Your task to perform on an android device: show emergency info Image 0: 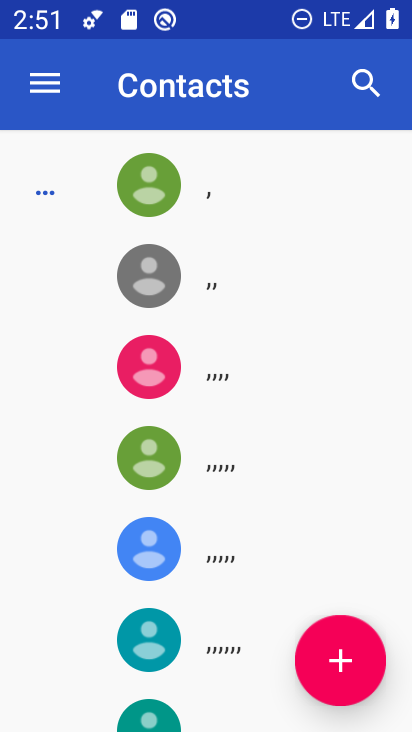
Step 0: press home button
Your task to perform on an android device: show emergency info Image 1: 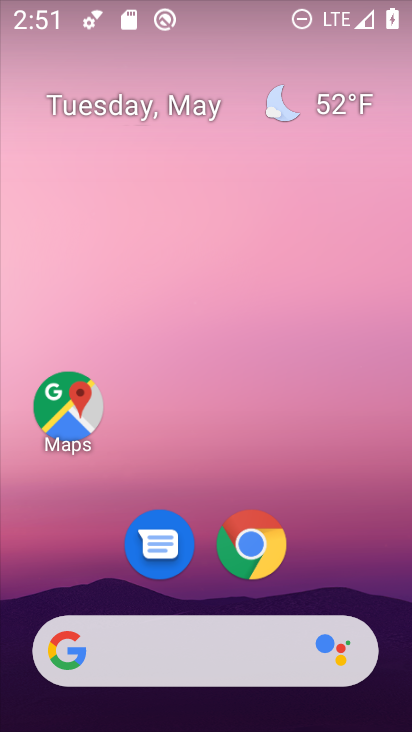
Step 1: drag from (341, 553) to (338, 215)
Your task to perform on an android device: show emergency info Image 2: 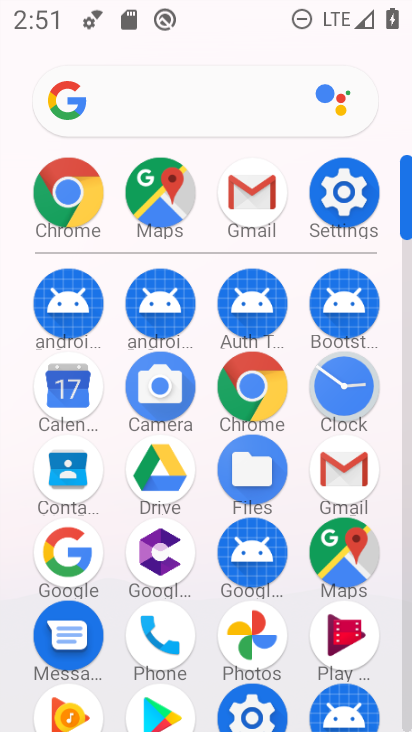
Step 2: click (343, 177)
Your task to perform on an android device: show emergency info Image 3: 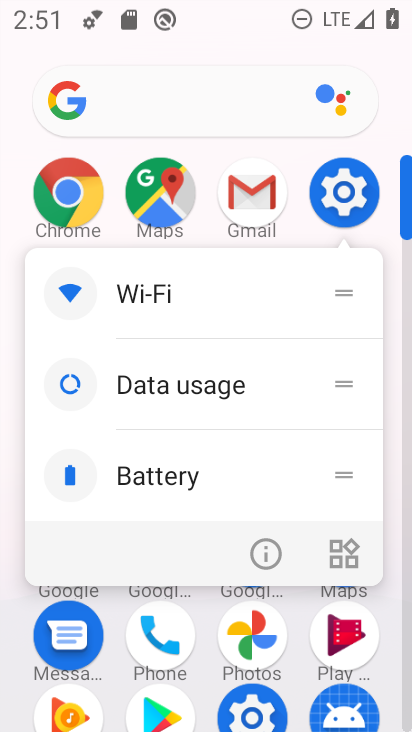
Step 3: click (343, 177)
Your task to perform on an android device: show emergency info Image 4: 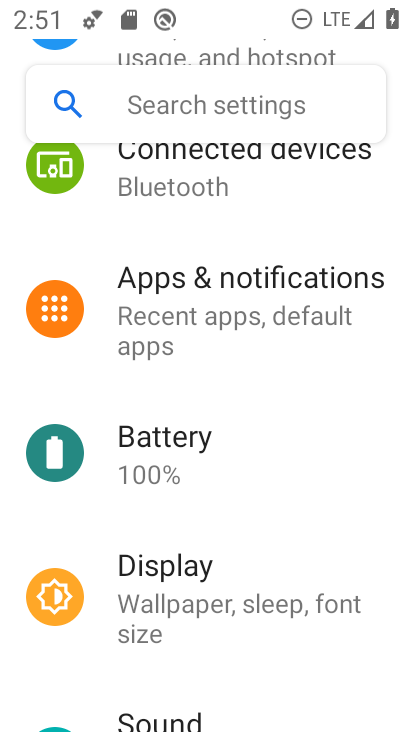
Step 4: drag from (362, 222) to (355, 341)
Your task to perform on an android device: show emergency info Image 5: 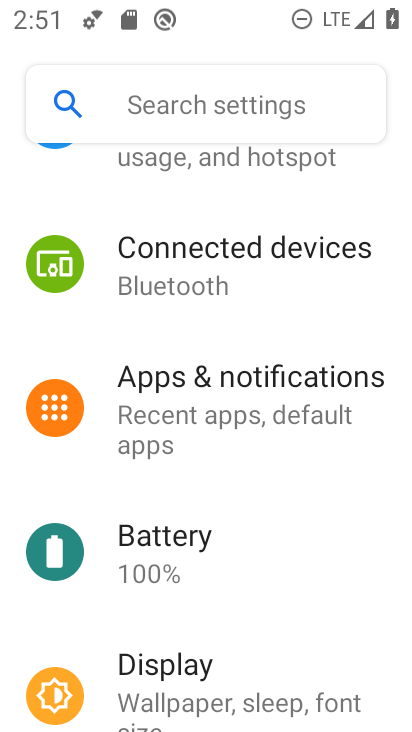
Step 5: drag from (375, 191) to (373, 289)
Your task to perform on an android device: show emergency info Image 6: 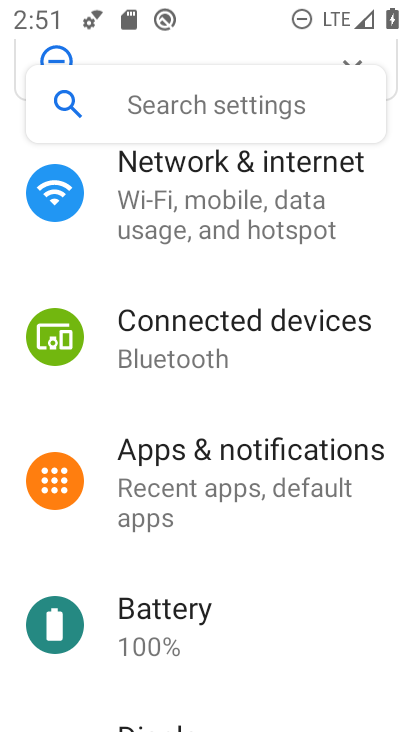
Step 6: drag from (335, 403) to (346, 261)
Your task to perform on an android device: show emergency info Image 7: 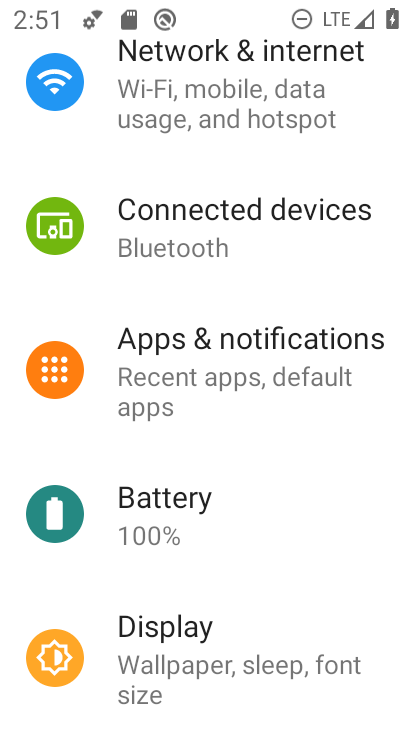
Step 7: drag from (333, 443) to (346, 399)
Your task to perform on an android device: show emergency info Image 8: 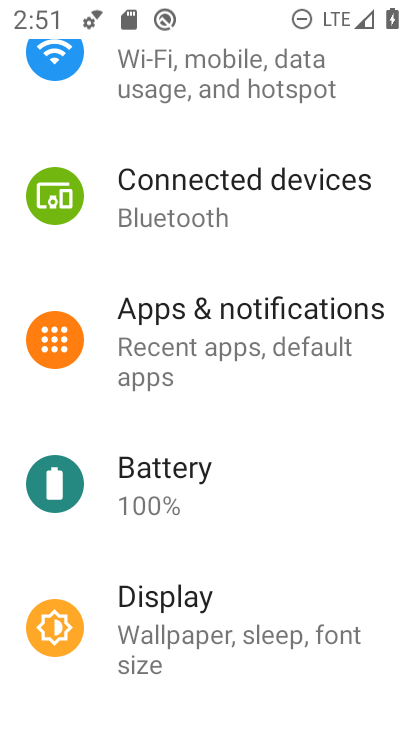
Step 8: drag from (283, 527) to (302, 397)
Your task to perform on an android device: show emergency info Image 9: 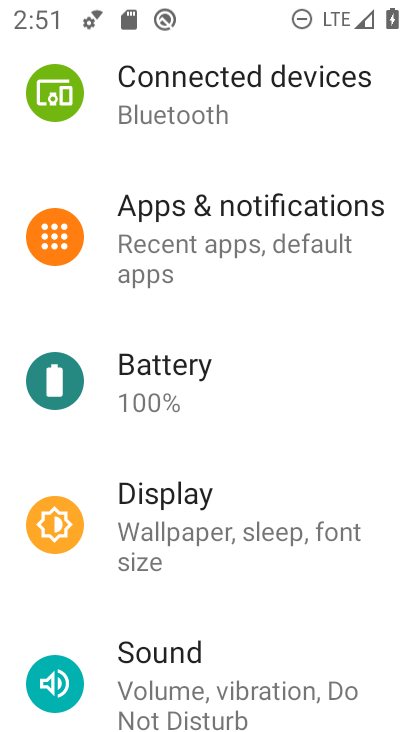
Step 9: drag from (269, 589) to (308, 470)
Your task to perform on an android device: show emergency info Image 10: 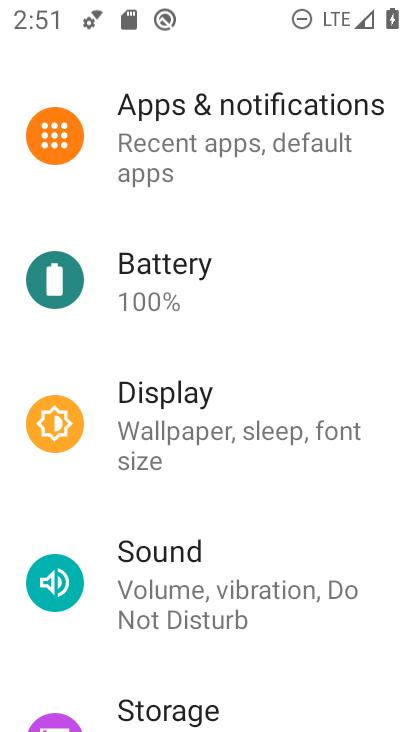
Step 10: drag from (326, 528) to (328, 414)
Your task to perform on an android device: show emergency info Image 11: 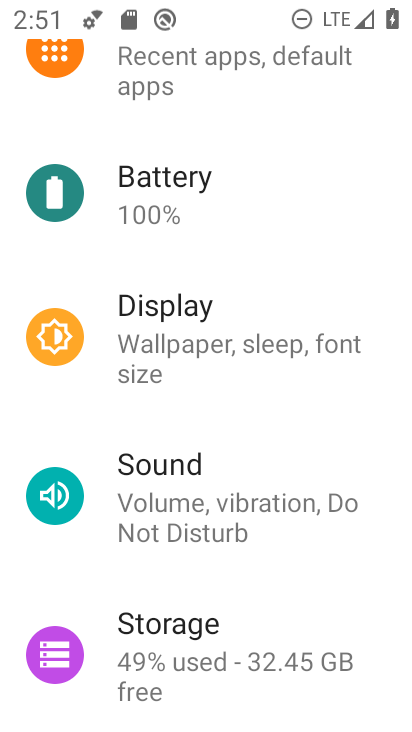
Step 11: drag from (327, 579) to (342, 499)
Your task to perform on an android device: show emergency info Image 12: 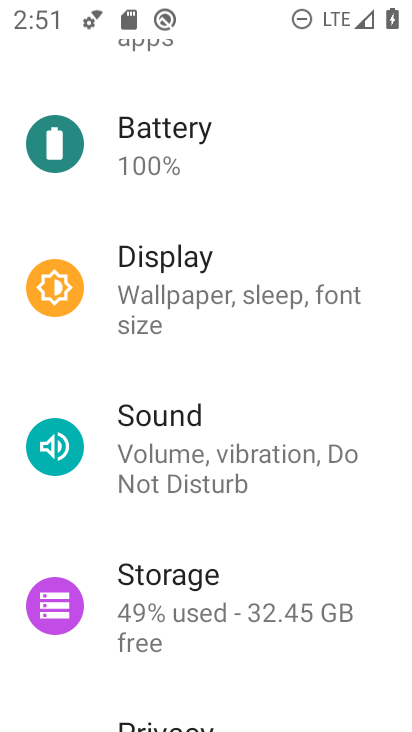
Step 12: drag from (346, 535) to (345, 442)
Your task to perform on an android device: show emergency info Image 13: 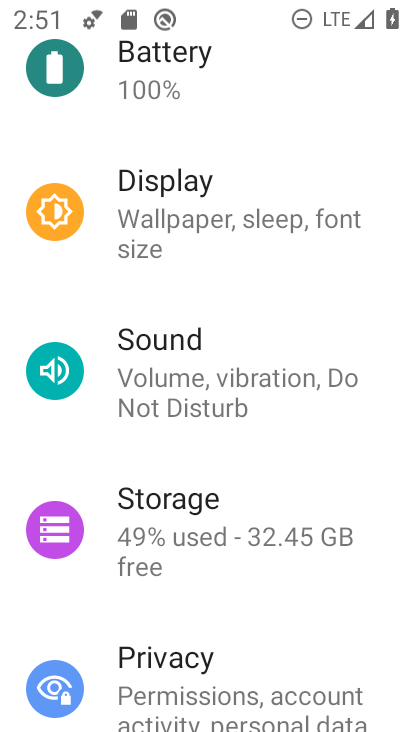
Step 13: drag from (330, 623) to (337, 519)
Your task to perform on an android device: show emergency info Image 14: 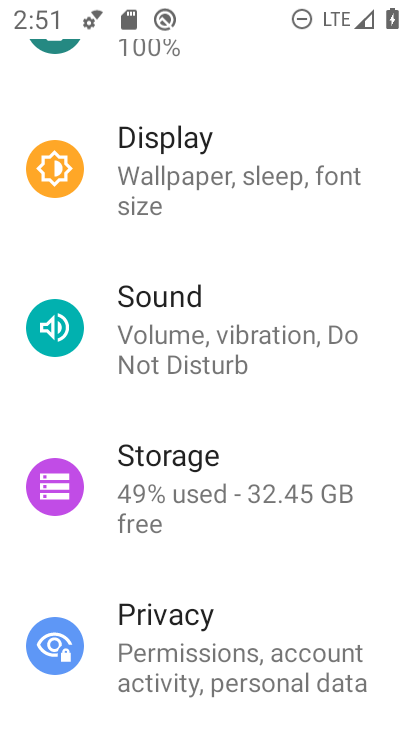
Step 14: drag from (343, 619) to (347, 534)
Your task to perform on an android device: show emergency info Image 15: 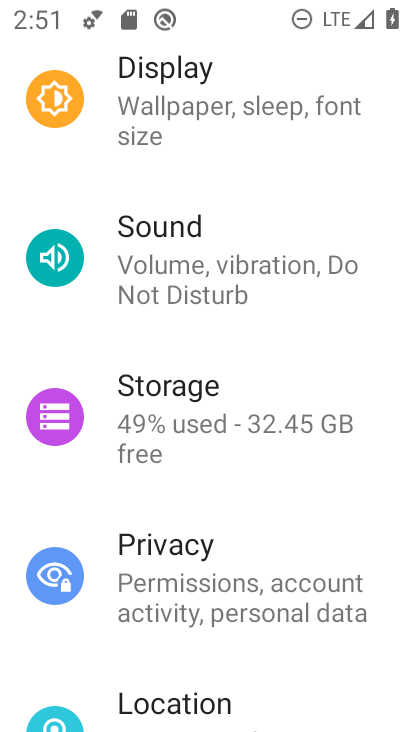
Step 15: click (357, 631)
Your task to perform on an android device: show emergency info Image 16: 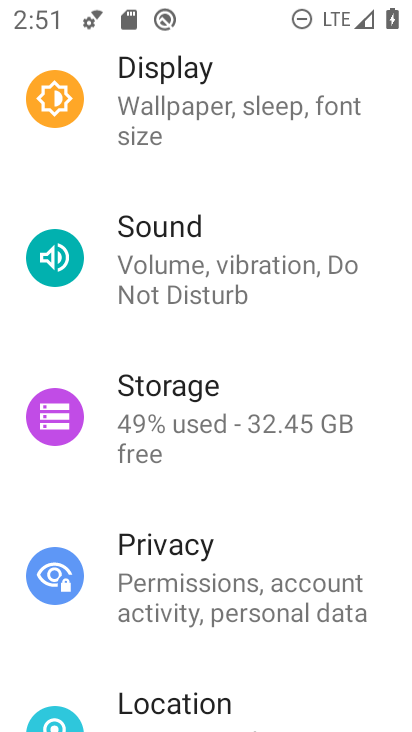
Step 16: drag from (340, 667) to (342, 573)
Your task to perform on an android device: show emergency info Image 17: 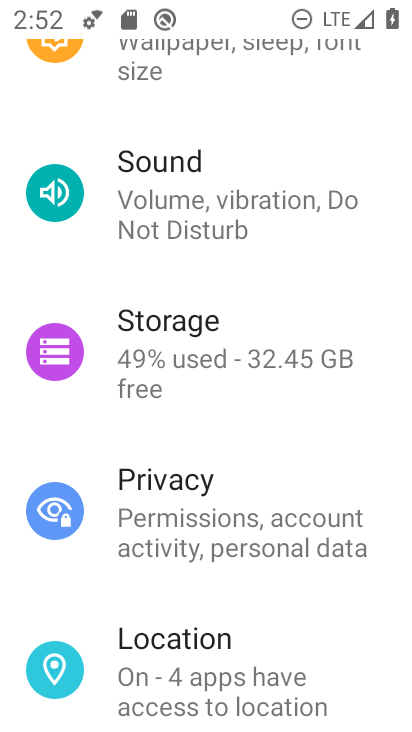
Step 17: drag from (357, 638) to (353, 507)
Your task to perform on an android device: show emergency info Image 18: 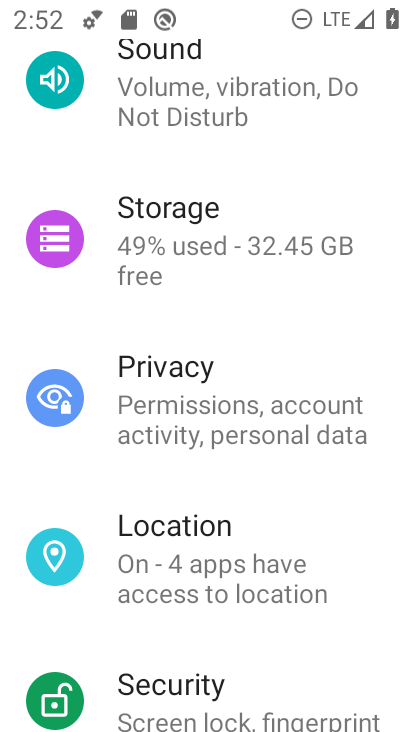
Step 18: drag from (348, 663) to (353, 533)
Your task to perform on an android device: show emergency info Image 19: 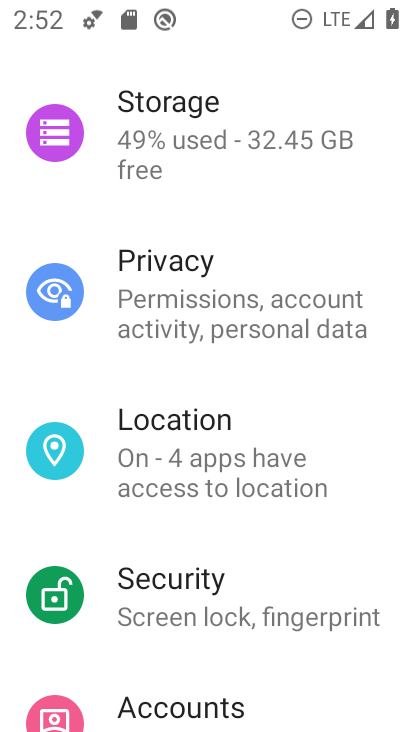
Step 19: drag from (350, 681) to (350, 562)
Your task to perform on an android device: show emergency info Image 20: 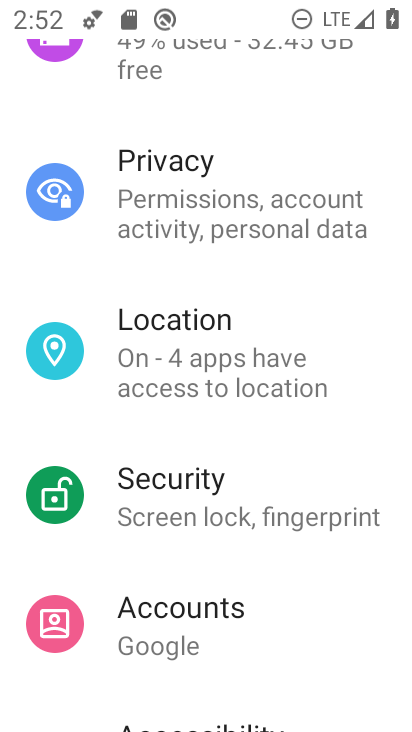
Step 20: drag from (340, 683) to (356, 606)
Your task to perform on an android device: show emergency info Image 21: 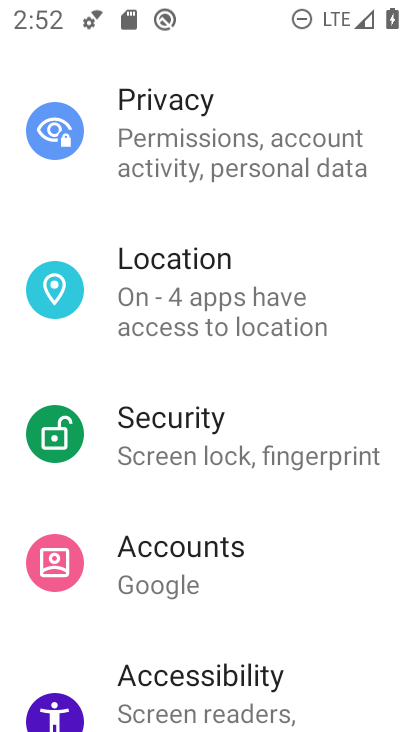
Step 21: drag from (345, 663) to (343, 549)
Your task to perform on an android device: show emergency info Image 22: 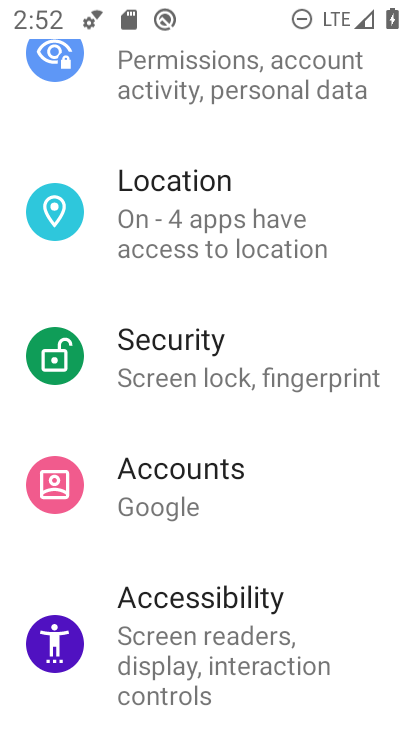
Step 22: drag from (352, 657) to (353, 556)
Your task to perform on an android device: show emergency info Image 23: 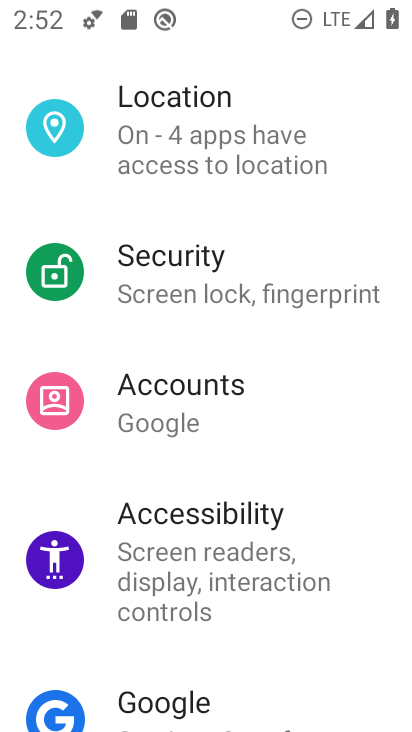
Step 23: drag from (357, 678) to (365, 582)
Your task to perform on an android device: show emergency info Image 24: 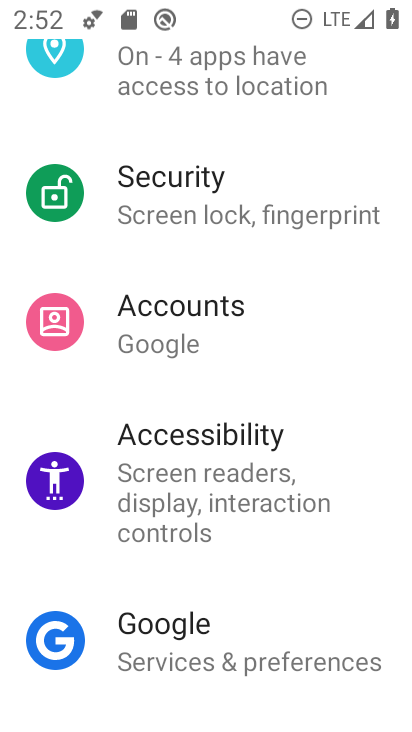
Step 24: drag from (365, 673) to (365, 609)
Your task to perform on an android device: show emergency info Image 25: 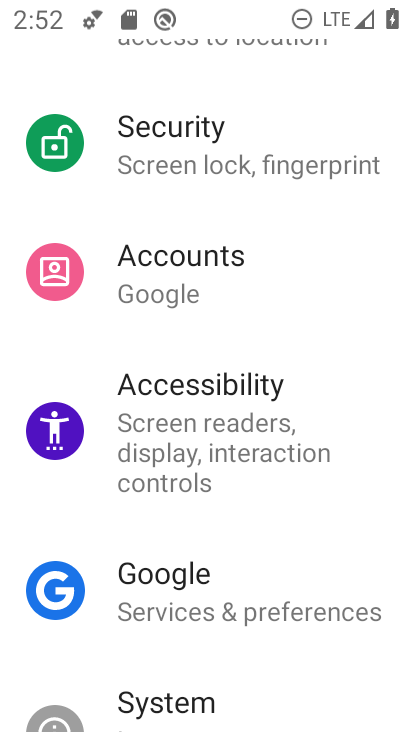
Step 25: drag from (333, 669) to (330, 515)
Your task to perform on an android device: show emergency info Image 26: 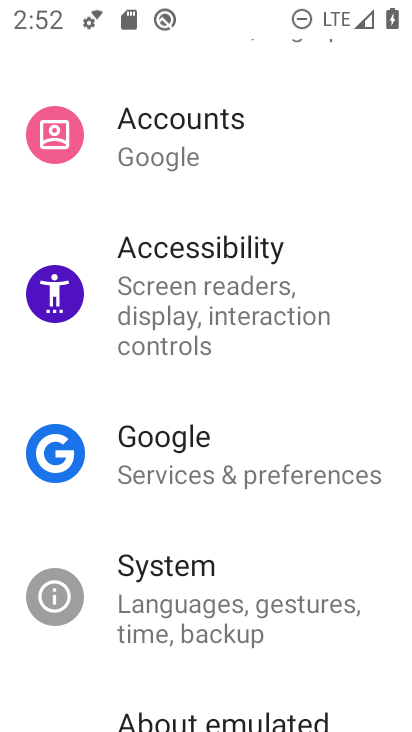
Step 26: drag from (312, 554) to (313, 489)
Your task to perform on an android device: show emergency info Image 27: 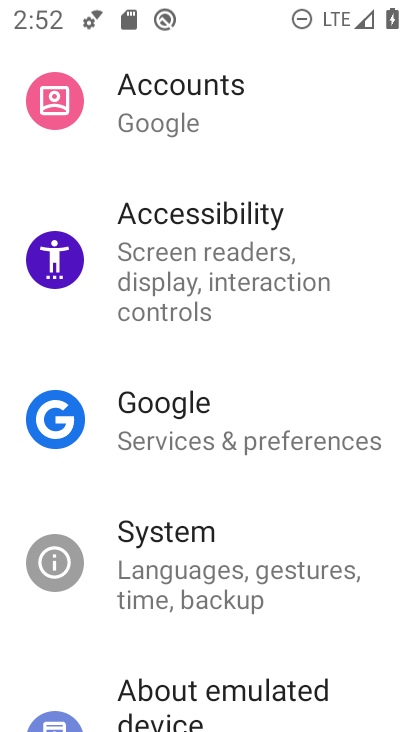
Step 27: drag from (318, 633) to (319, 507)
Your task to perform on an android device: show emergency info Image 28: 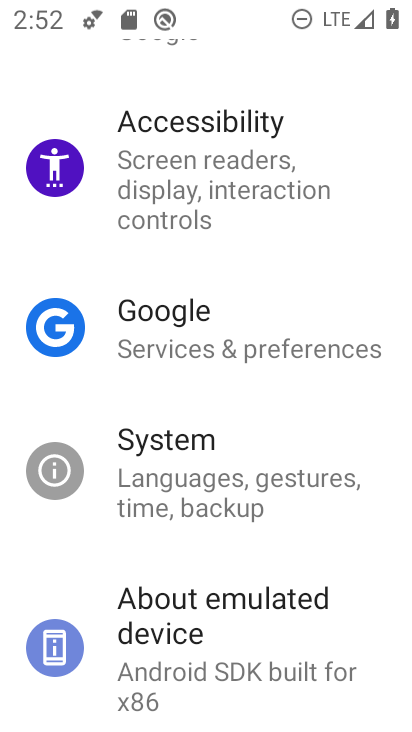
Step 28: click (267, 652)
Your task to perform on an android device: show emergency info Image 29: 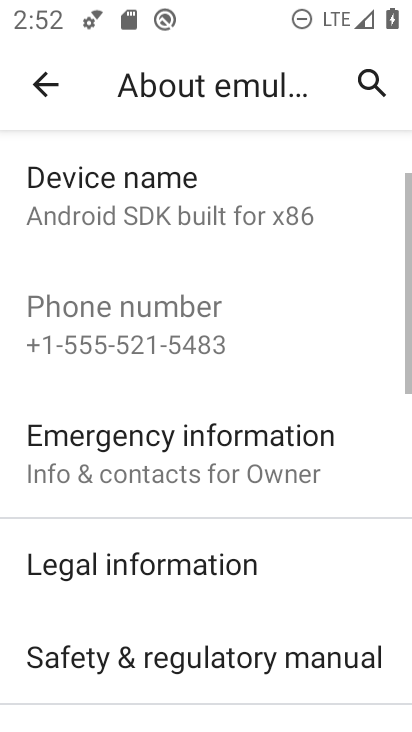
Step 29: click (173, 451)
Your task to perform on an android device: show emergency info Image 30: 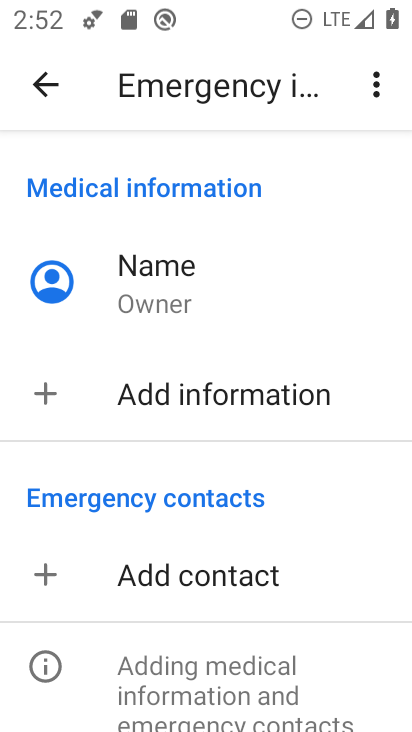
Step 30: task complete